Your task to perform on an android device: Go to display settings Image 0: 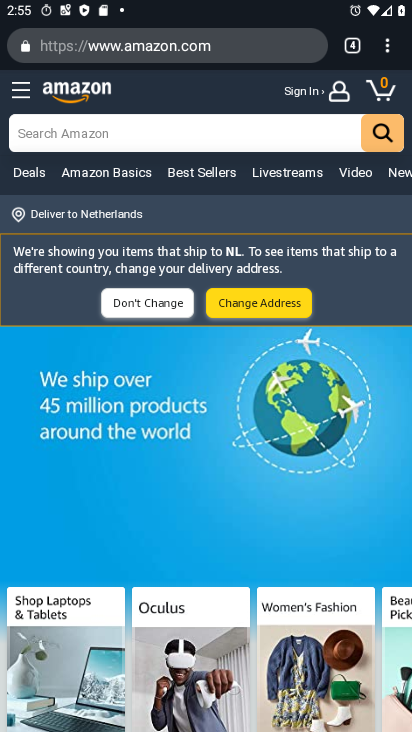
Step 0: press home button
Your task to perform on an android device: Go to display settings Image 1: 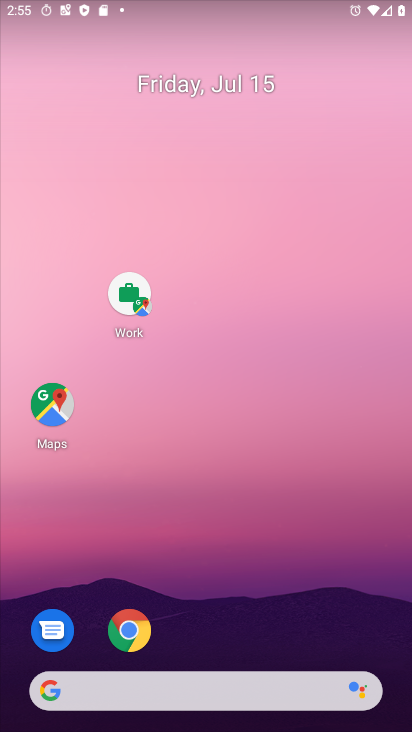
Step 1: drag from (223, 642) to (222, 263)
Your task to perform on an android device: Go to display settings Image 2: 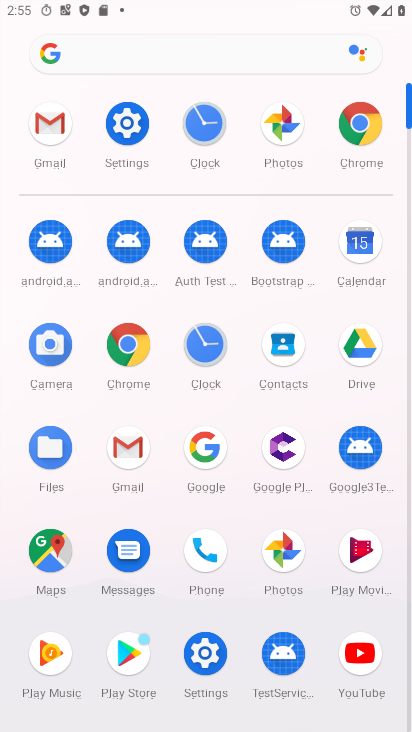
Step 2: click (122, 121)
Your task to perform on an android device: Go to display settings Image 3: 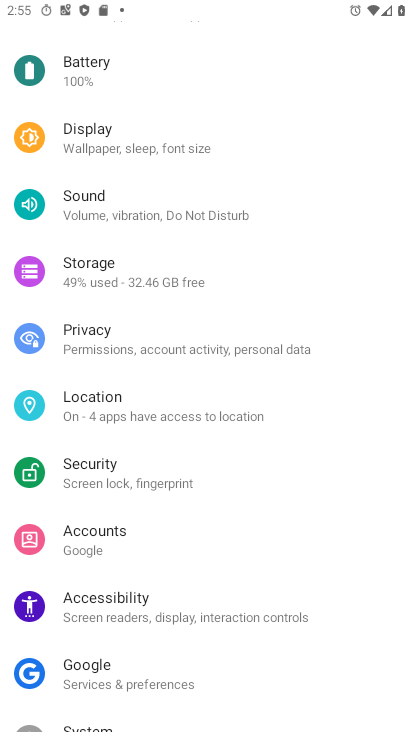
Step 3: click (127, 152)
Your task to perform on an android device: Go to display settings Image 4: 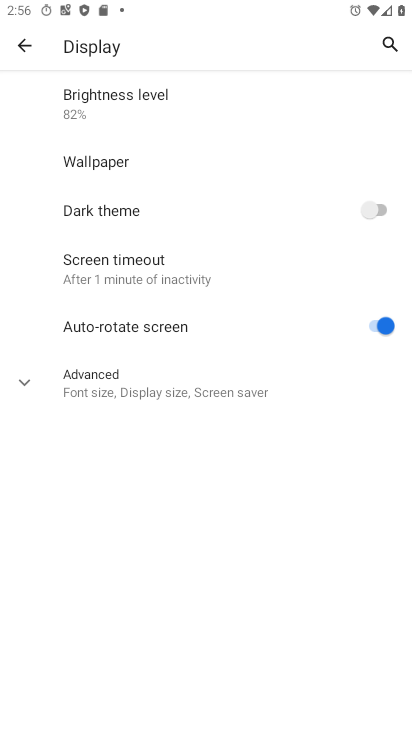
Step 4: task complete